Your task to perform on an android device: Go to privacy settings Image 0: 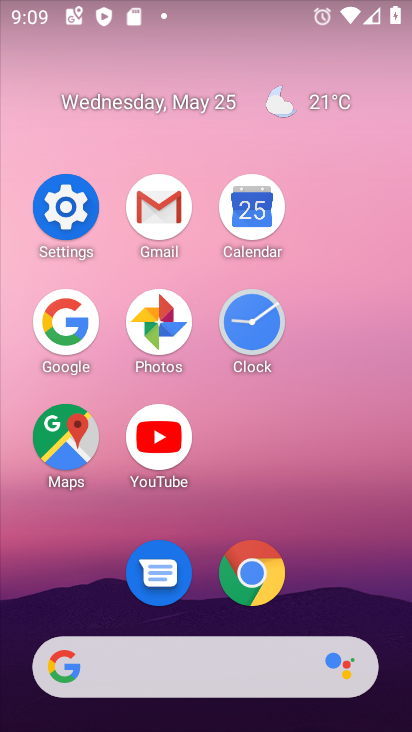
Step 0: click (90, 208)
Your task to perform on an android device: Go to privacy settings Image 1: 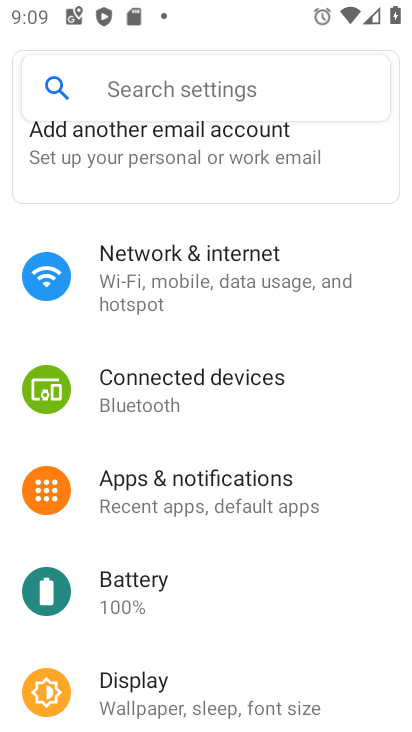
Step 1: drag from (245, 631) to (212, 224)
Your task to perform on an android device: Go to privacy settings Image 2: 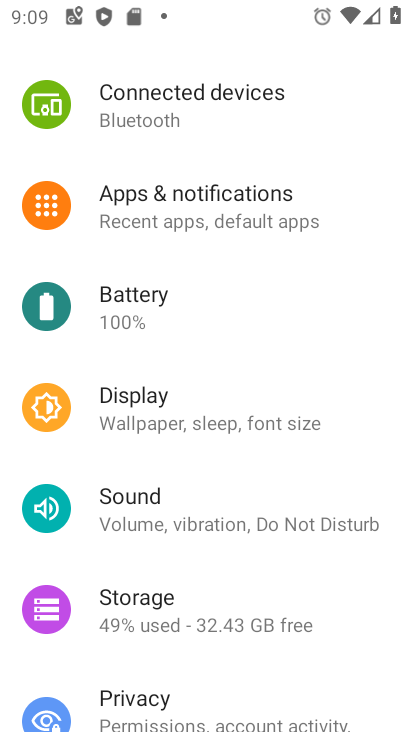
Step 2: click (194, 698)
Your task to perform on an android device: Go to privacy settings Image 3: 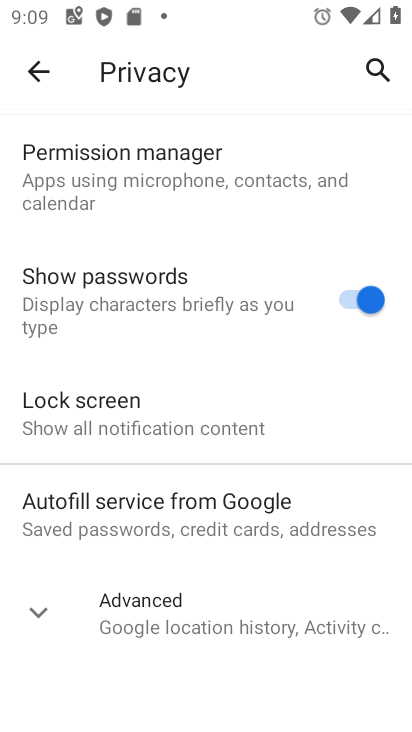
Step 3: task complete